Your task to perform on an android device: Show me recent news Image 0: 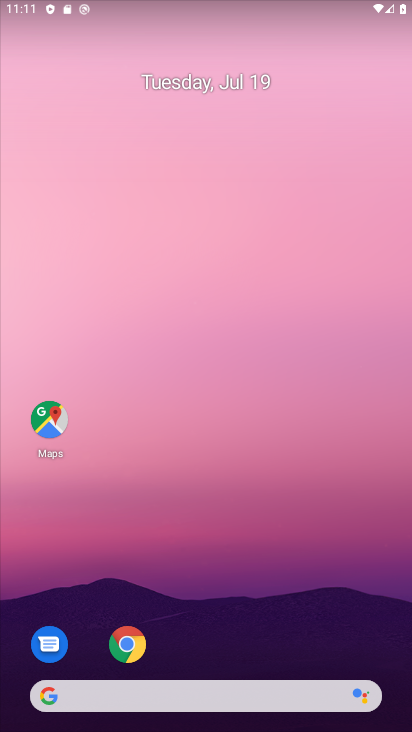
Step 0: press home button
Your task to perform on an android device: Show me recent news Image 1: 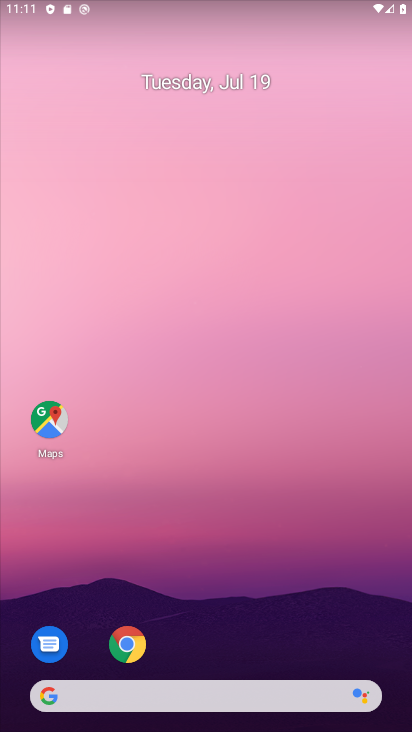
Step 1: drag from (171, 677) to (290, 149)
Your task to perform on an android device: Show me recent news Image 2: 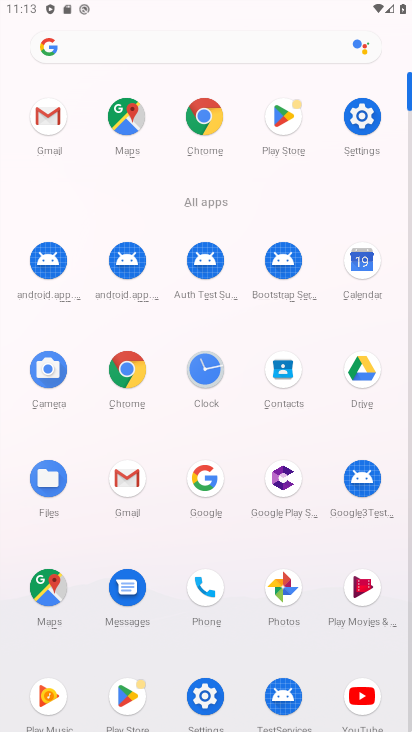
Step 2: click (192, 120)
Your task to perform on an android device: Show me recent news Image 3: 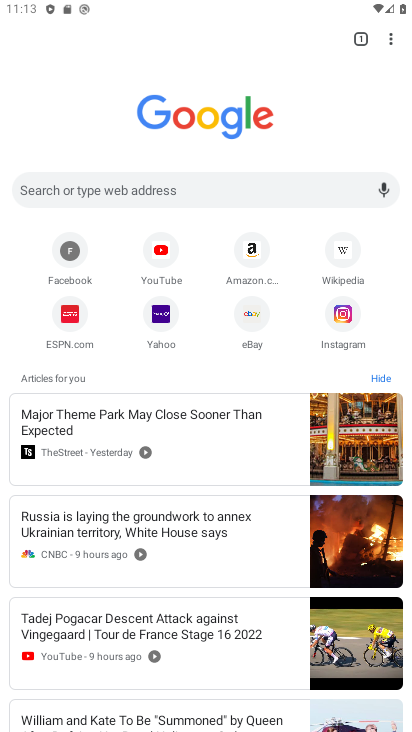
Step 3: click (194, 196)
Your task to perform on an android device: Show me recent news Image 4: 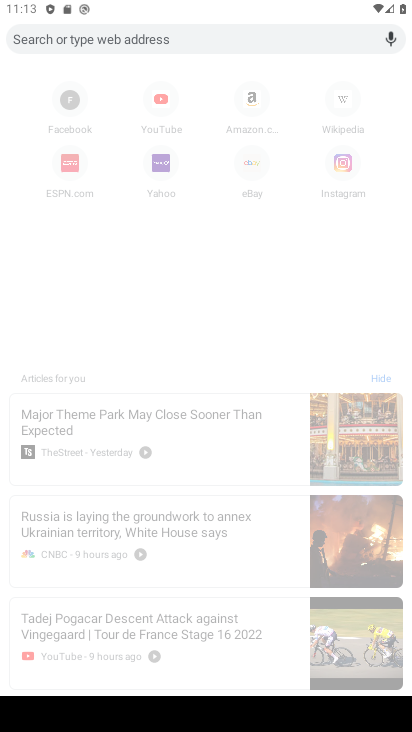
Step 4: type "Show me recent news"
Your task to perform on an android device: Show me recent news Image 5: 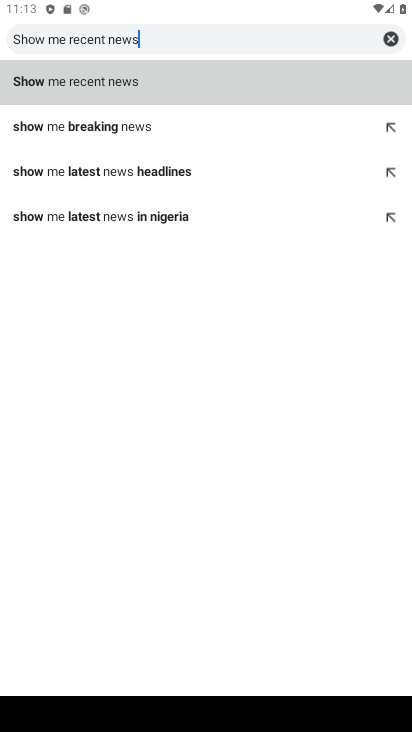
Step 5: type ""
Your task to perform on an android device: Show me recent news Image 6: 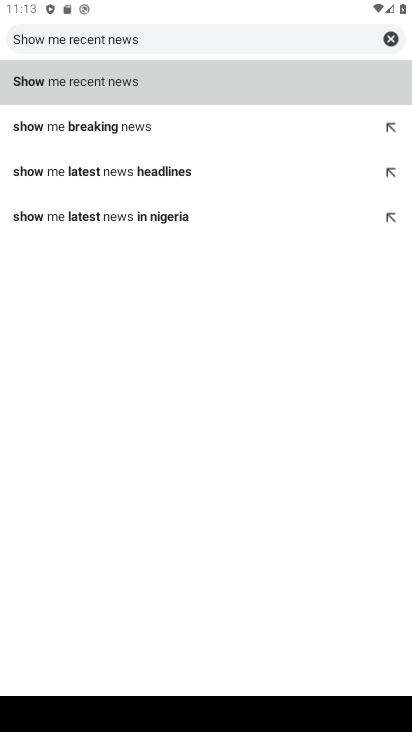
Step 6: click (119, 63)
Your task to perform on an android device: Show me recent news Image 7: 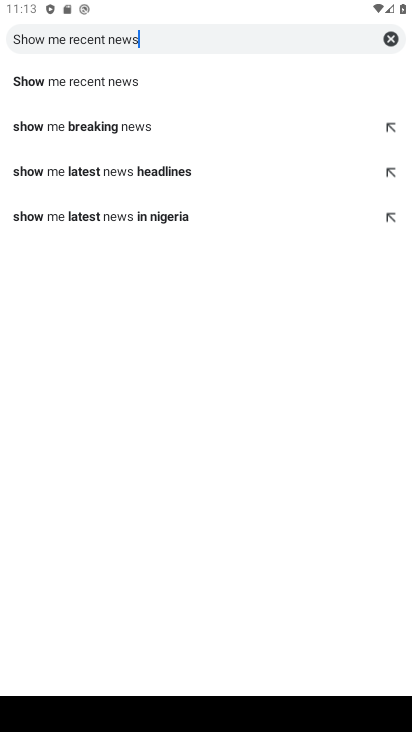
Step 7: click (129, 78)
Your task to perform on an android device: Show me recent news Image 8: 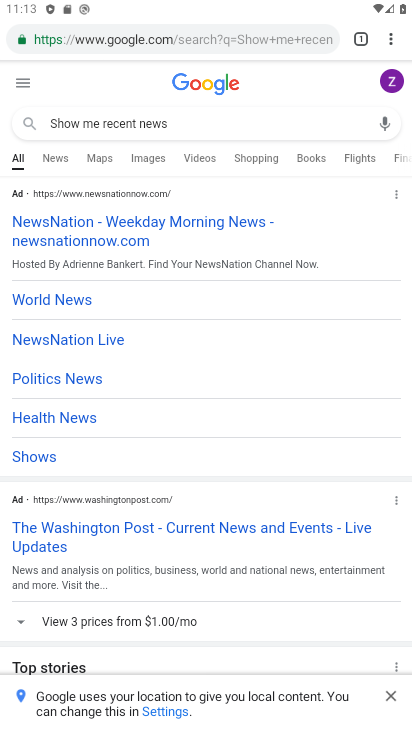
Step 8: task complete